Your task to perform on an android device: turn on location history Image 0: 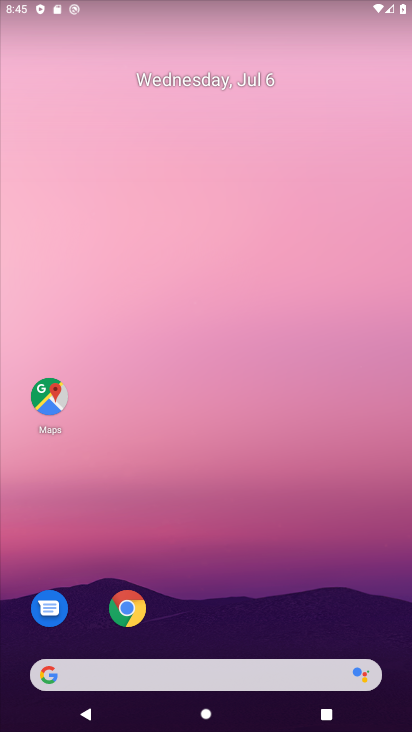
Step 0: drag from (263, 611) to (194, 179)
Your task to perform on an android device: turn on location history Image 1: 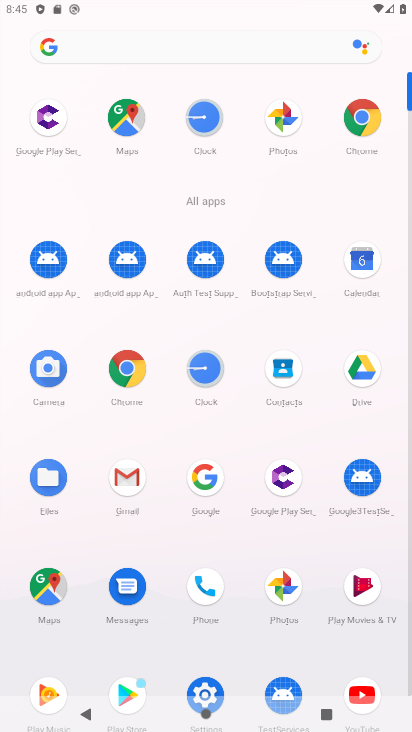
Step 1: click (132, 124)
Your task to perform on an android device: turn on location history Image 2: 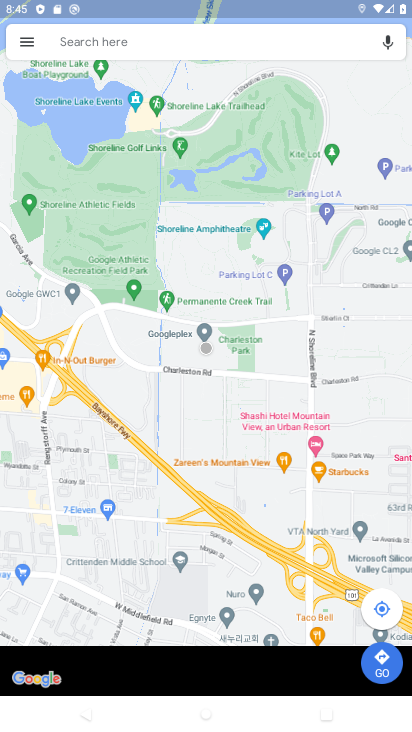
Step 2: click (28, 37)
Your task to perform on an android device: turn on location history Image 3: 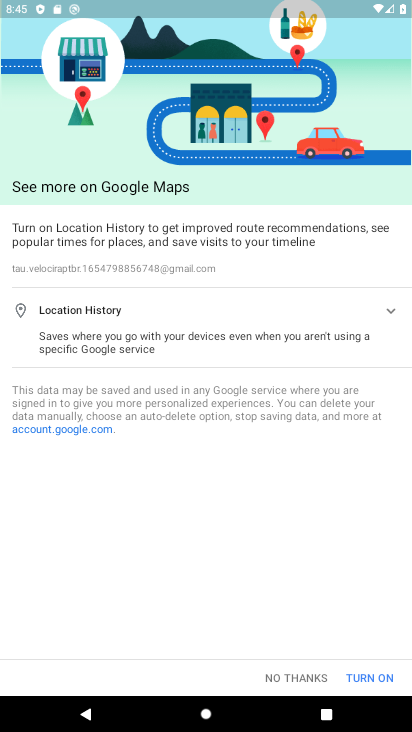
Step 3: click (385, 682)
Your task to perform on an android device: turn on location history Image 4: 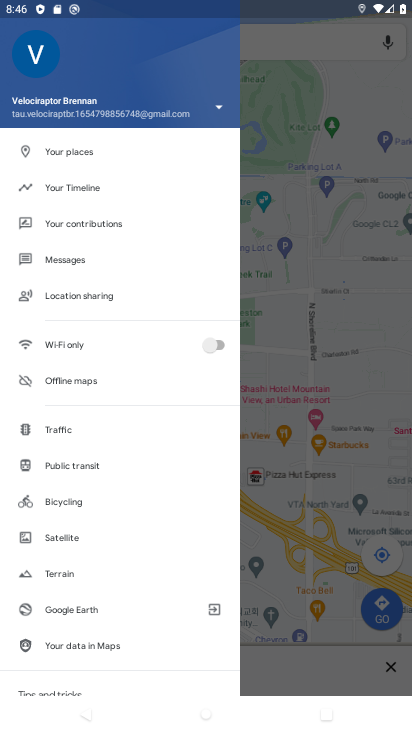
Step 4: task complete